Your task to perform on an android device: Check the news Image 0: 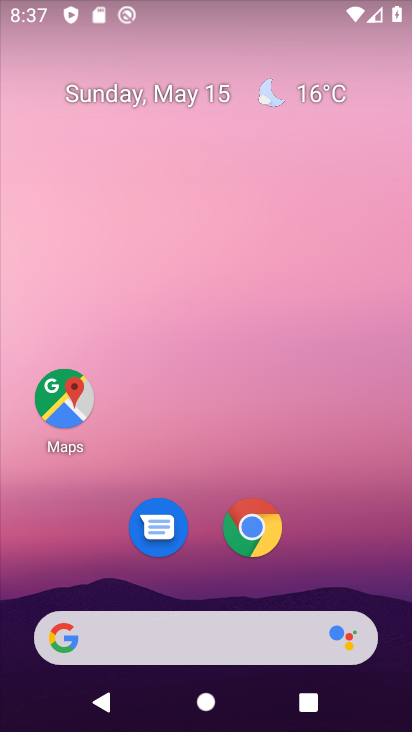
Step 0: click (106, 645)
Your task to perform on an android device: Check the news Image 1: 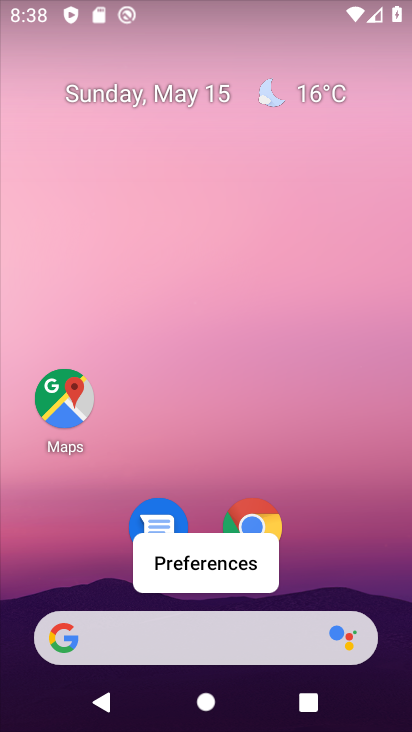
Step 1: click (139, 634)
Your task to perform on an android device: Check the news Image 2: 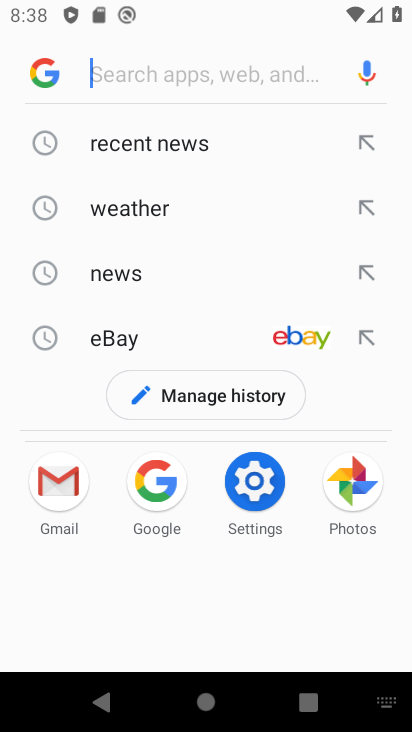
Step 2: click (103, 276)
Your task to perform on an android device: Check the news Image 3: 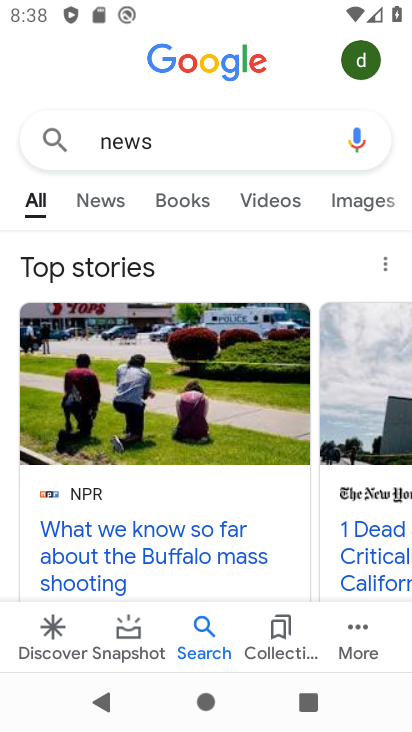
Step 3: drag from (240, 500) to (206, 244)
Your task to perform on an android device: Check the news Image 4: 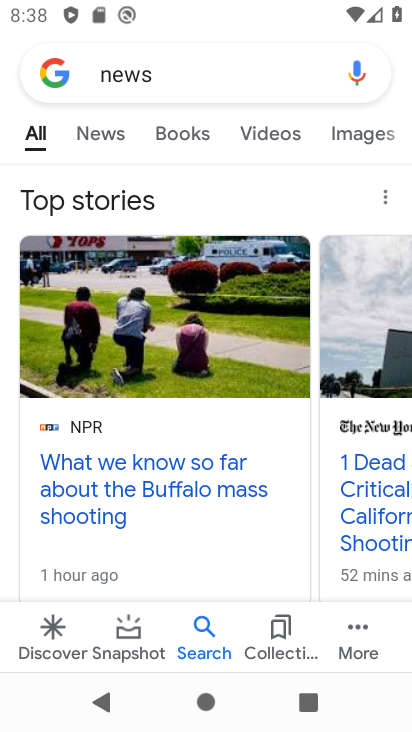
Step 4: click (85, 140)
Your task to perform on an android device: Check the news Image 5: 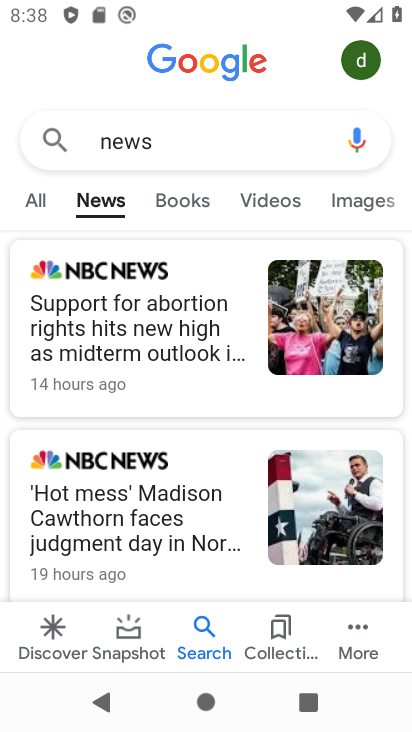
Step 5: task complete